Your task to perform on an android device: Is it going to rain tomorrow? Image 0: 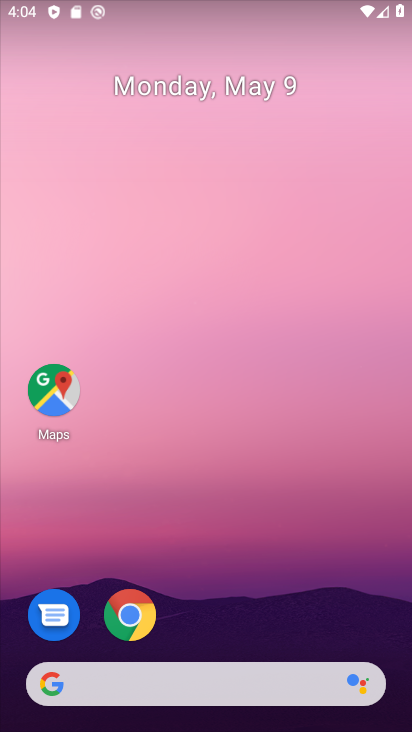
Step 0: click (210, 680)
Your task to perform on an android device: Is it going to rain tomorrow? Image 1: 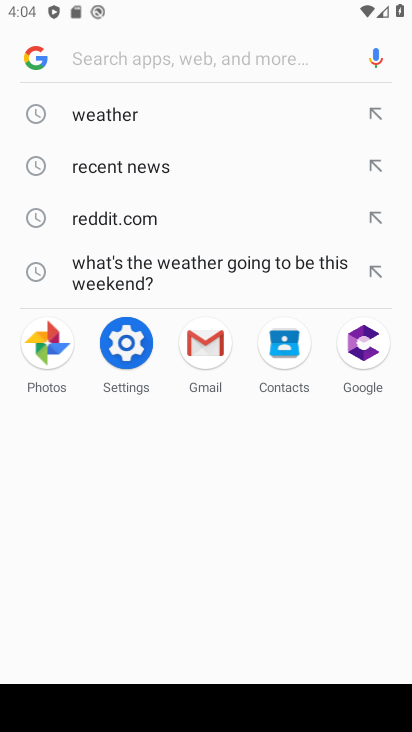
Step 1: click (206, 112)
Your task to perform on an android device: Is it going to rain tomorrow? Image 2: 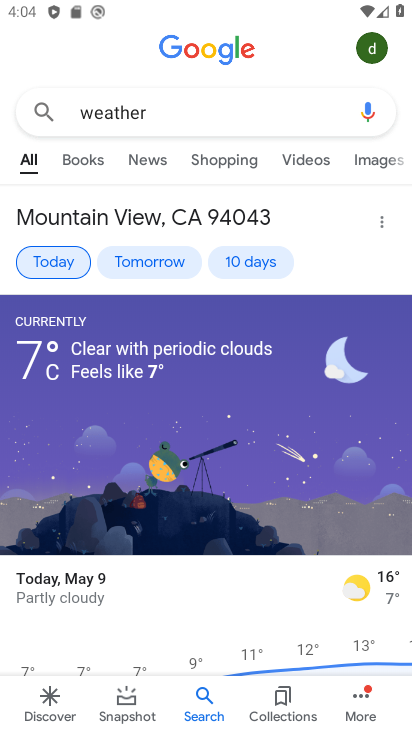
Step 2: click (137, 277)
Your task to perform on an android device: Is it going to rain tomorrow? Image 3: 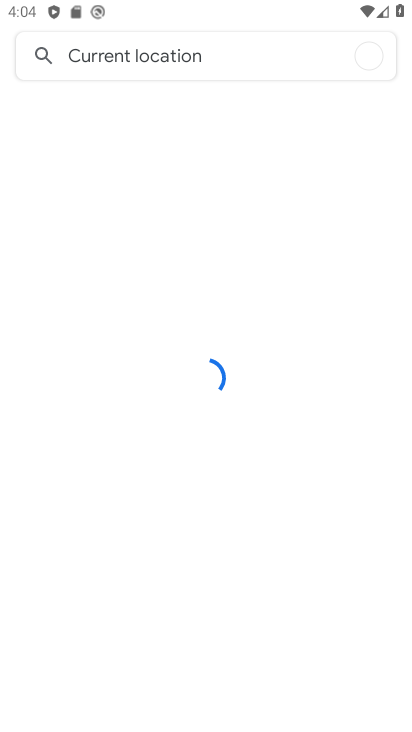
Step 3: click (171, 266)
Your task to perform on an android device: Is it going to rain tomorrow? Image 4: 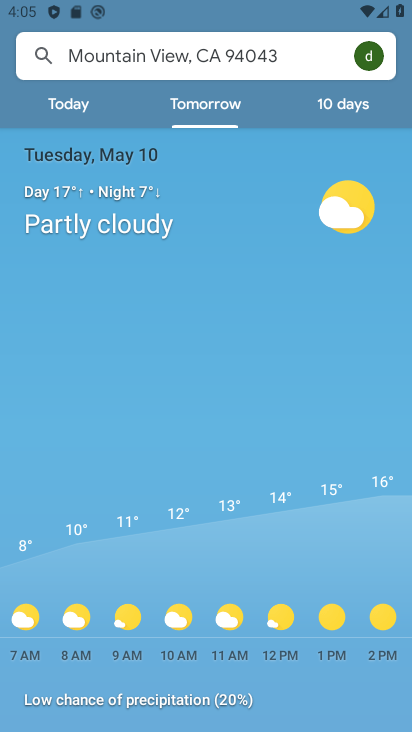
Step 4: task complete